Your task to perform on an android device: Open the calendar and show me this week's events Image 0: 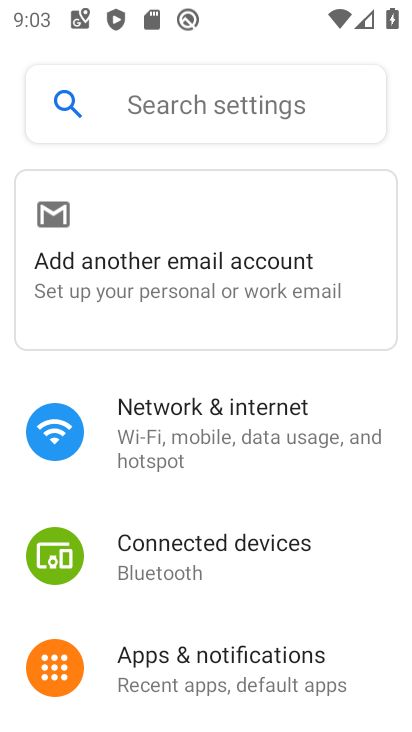
Step 0: press home button
Your task to perform on an android device: Open the calendar and show me this week's events Image 1: 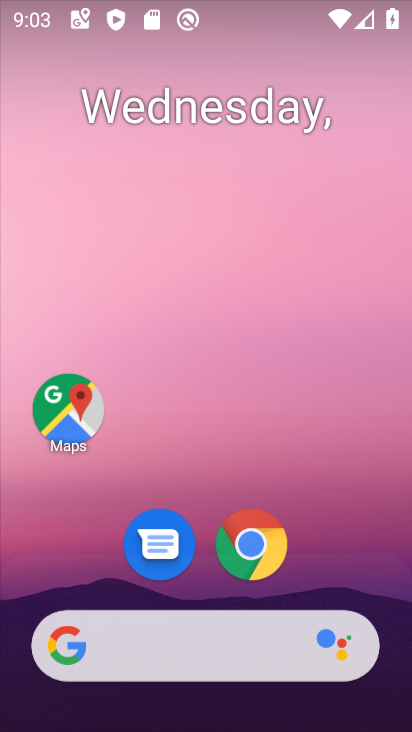
Step 1: click (164, 113)
Your task to perform on an android device: Open the calendar and show me this week's events Image 2: 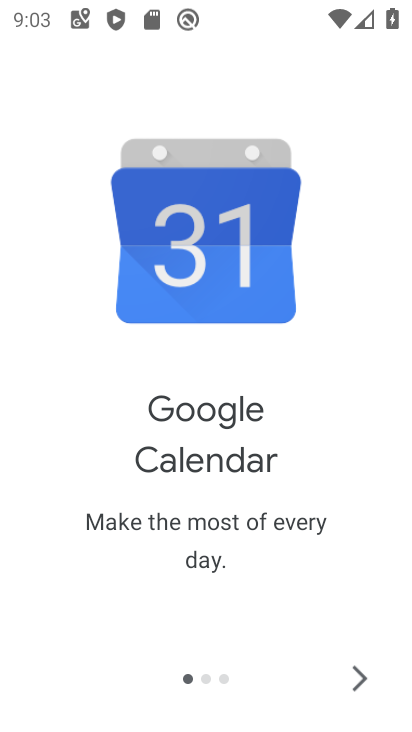
Step 2: click (366, 668)
Your task to perform on an android device: Open the calendar and show me this week's events Image 3: 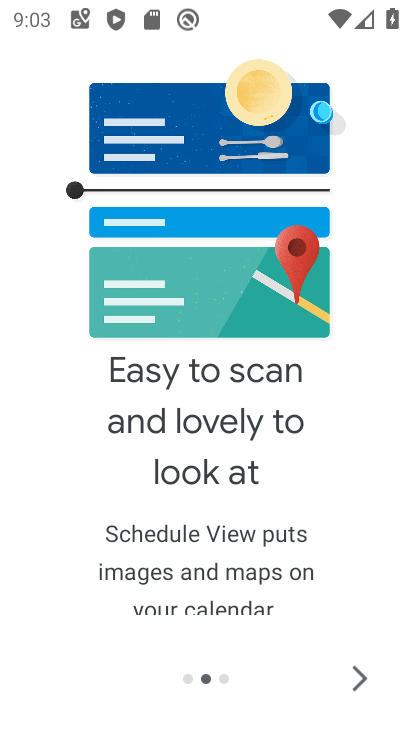
Step 3: click (366, 668)
Your task to perform on an android device: Open the calendar and show me this week's events Image 4: 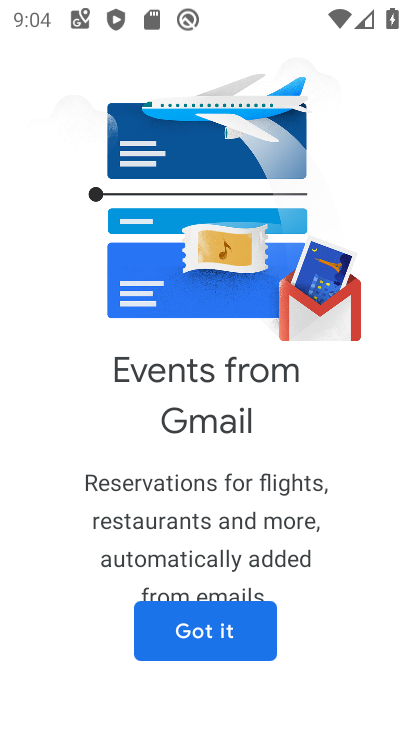
Step 4: click (366, 668)
Your task to perform on an android device: Open the calendar and show me this week's events Image 5: 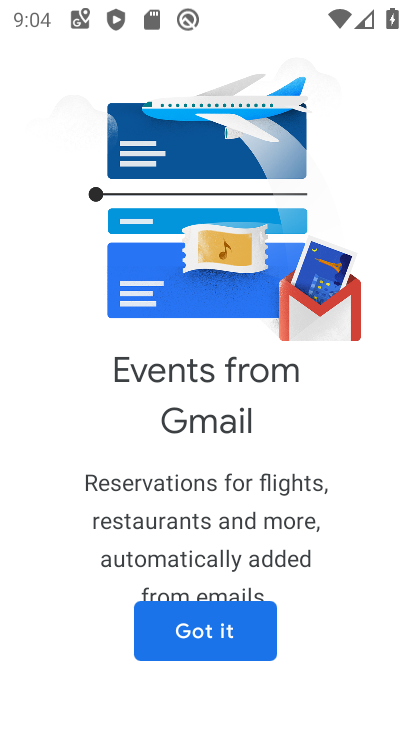
Step 5: click (183, 627)
Your task to perform on an android device: Open the calendar and show me this week's events Image 6: 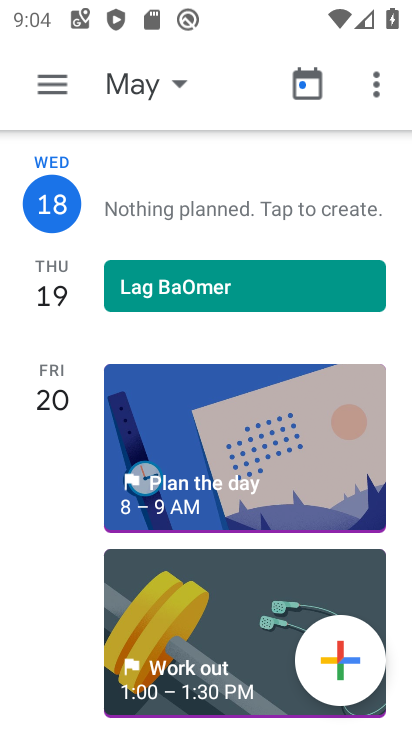
Step 6: click (71, 85)
Your task to perform on an android device: Open the calendar and show me this week's events Image 7: 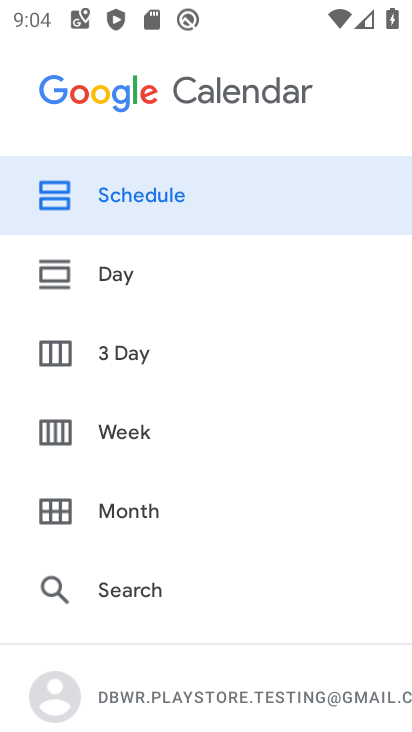
Step 7: drag from (159, 662) to (202, 302)
Your task to perform on an android device: Open the calendar and show me this week's events Image 8: 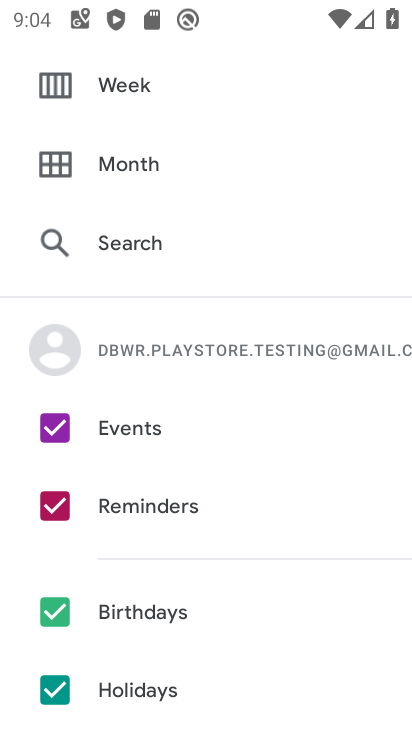
Step 8: click (61, 496)
Your task to perform on an android device: Open the calendar and show me this week's events Image 9: 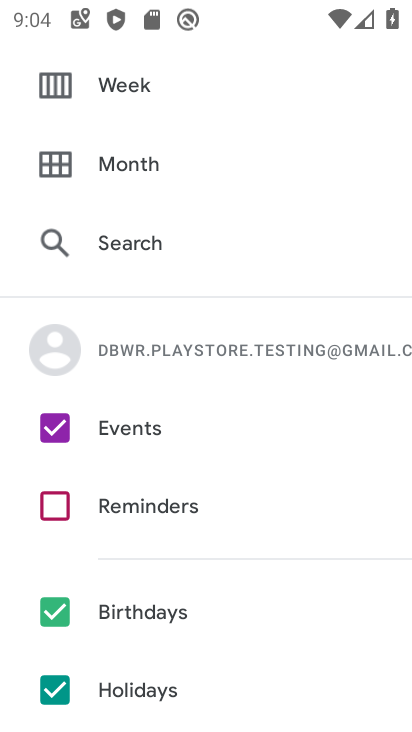
Step 9: click (52, 607)
Your task to perform on an android device: Open the calendar and show me this week's events Image 10: 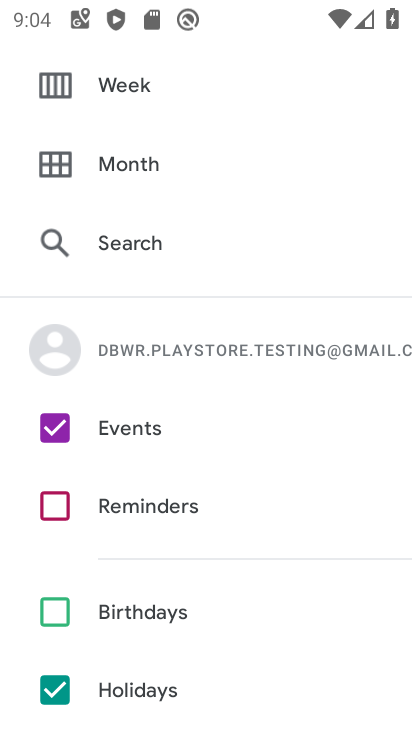
Step 10: click (56, 682)
Your task to perform on an android device: Open the calendar and show me this week's events Image 11: 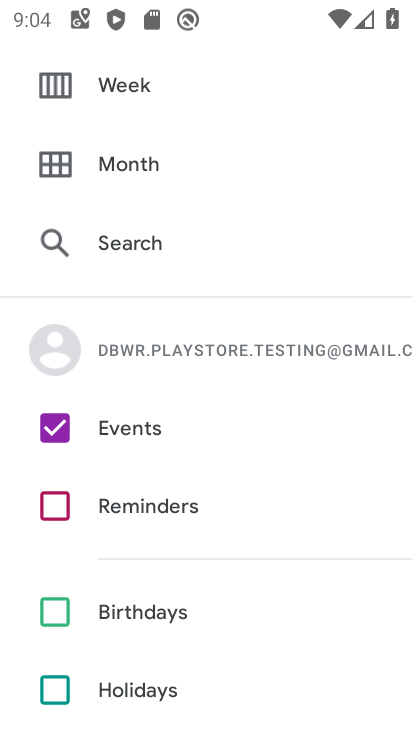
Step 11: click (343, 392)
Your task to perform on an android device: Open the calendar and show me this week's events Image 12: 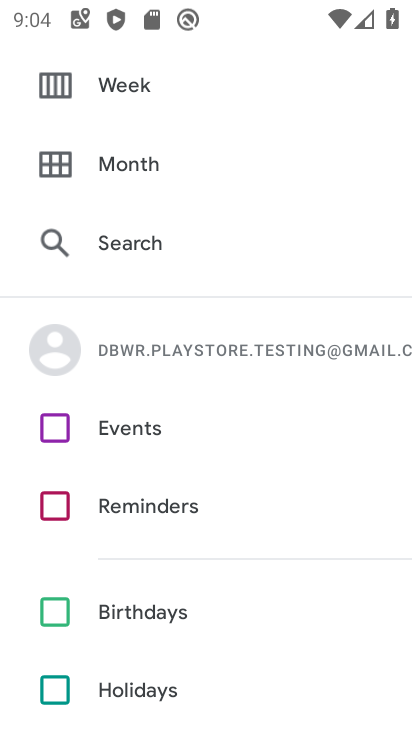
Step 12: click (66, 425)
Your task to perform on an android device: Open the calendar and show me this week's events Image 13: 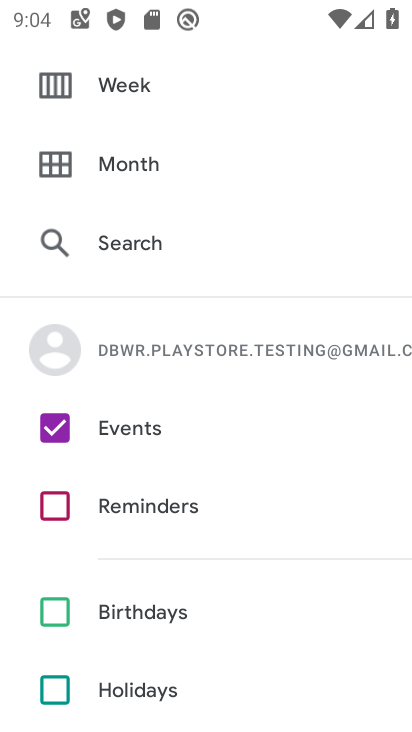
Step 13: drag from (212, 110) to (201, 601)
Your task to perform on an android device: Open the calendar and show me this week's events Image 14: 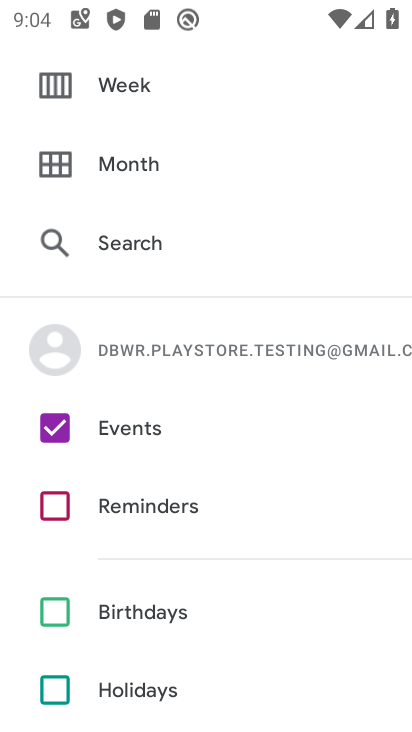
Step 14: drag from (221, 92) to (252, 610)
Your task to perform on an android device: Open the calendar and show me this week's events Image 15: 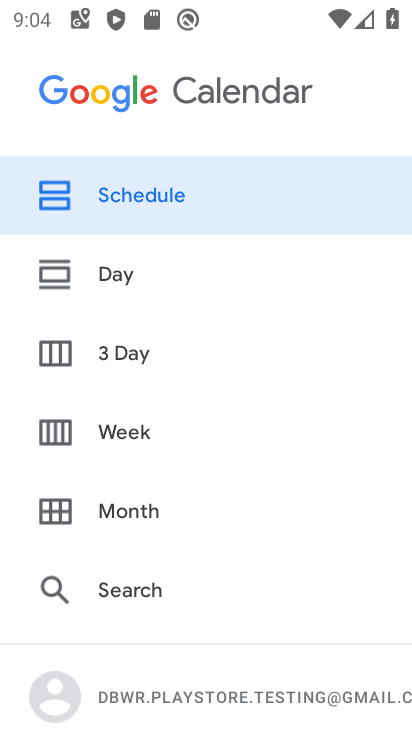
Step 15: click (164, 445)
Your task to perform on an android device: Open the calendar and show me this week's events Image 16: 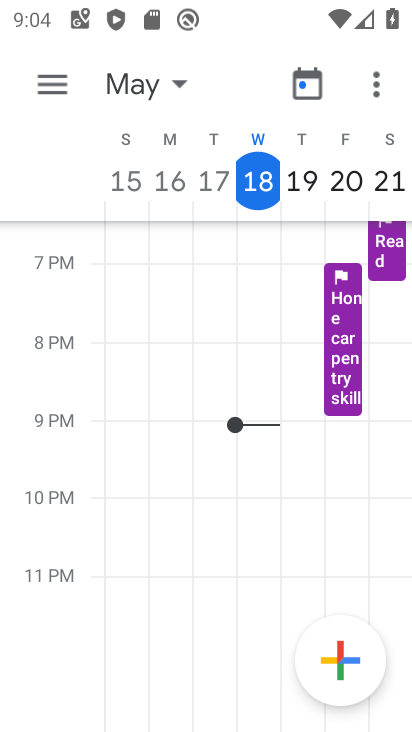
Step 16: task complete